Your task to perform on an android device: Open battery settings Image 0: 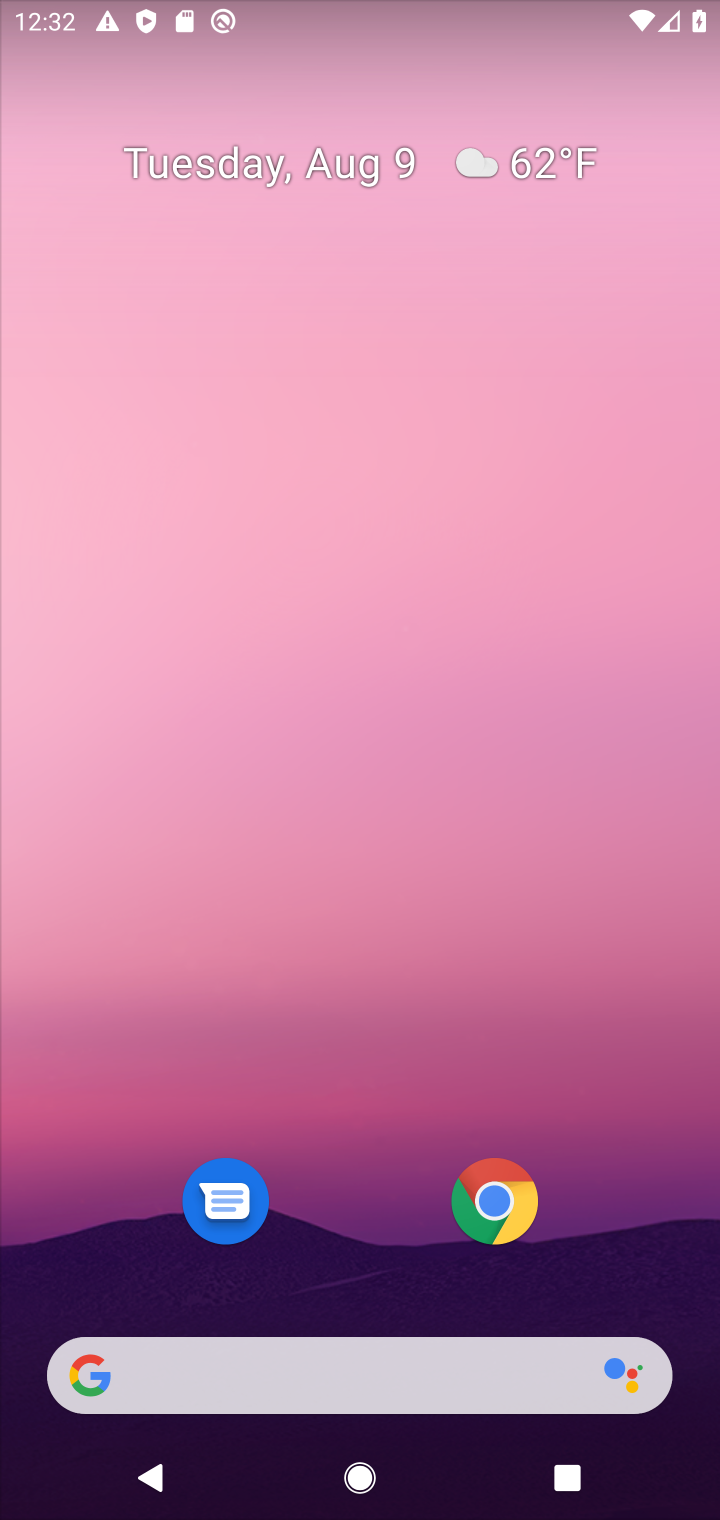
Step 0: drag from (340, 1178) to (318, 2)
Your task to perform on an android device: Open battery settings Image 1: 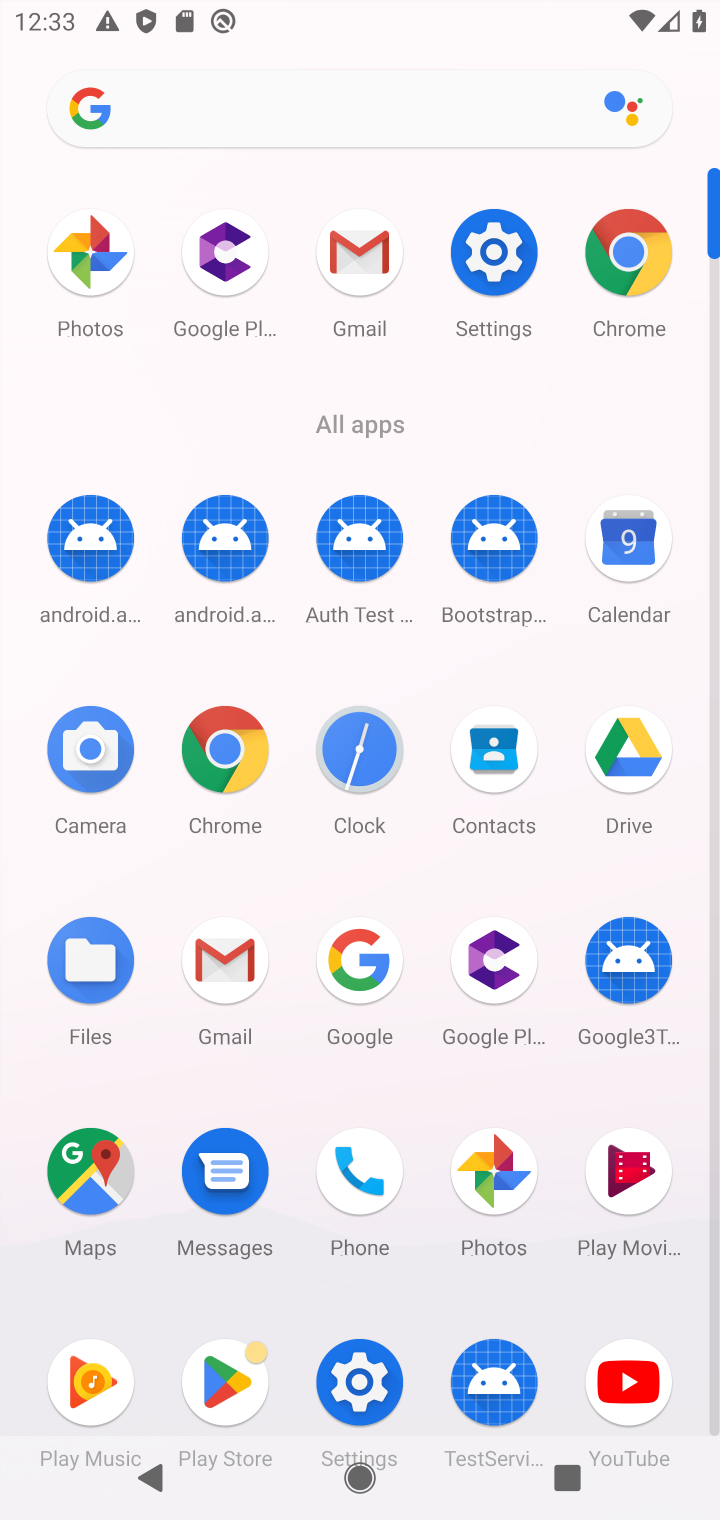
Step 1: click (354, 1380)
Your task to perform on an android device: Open battery settings Image 2: 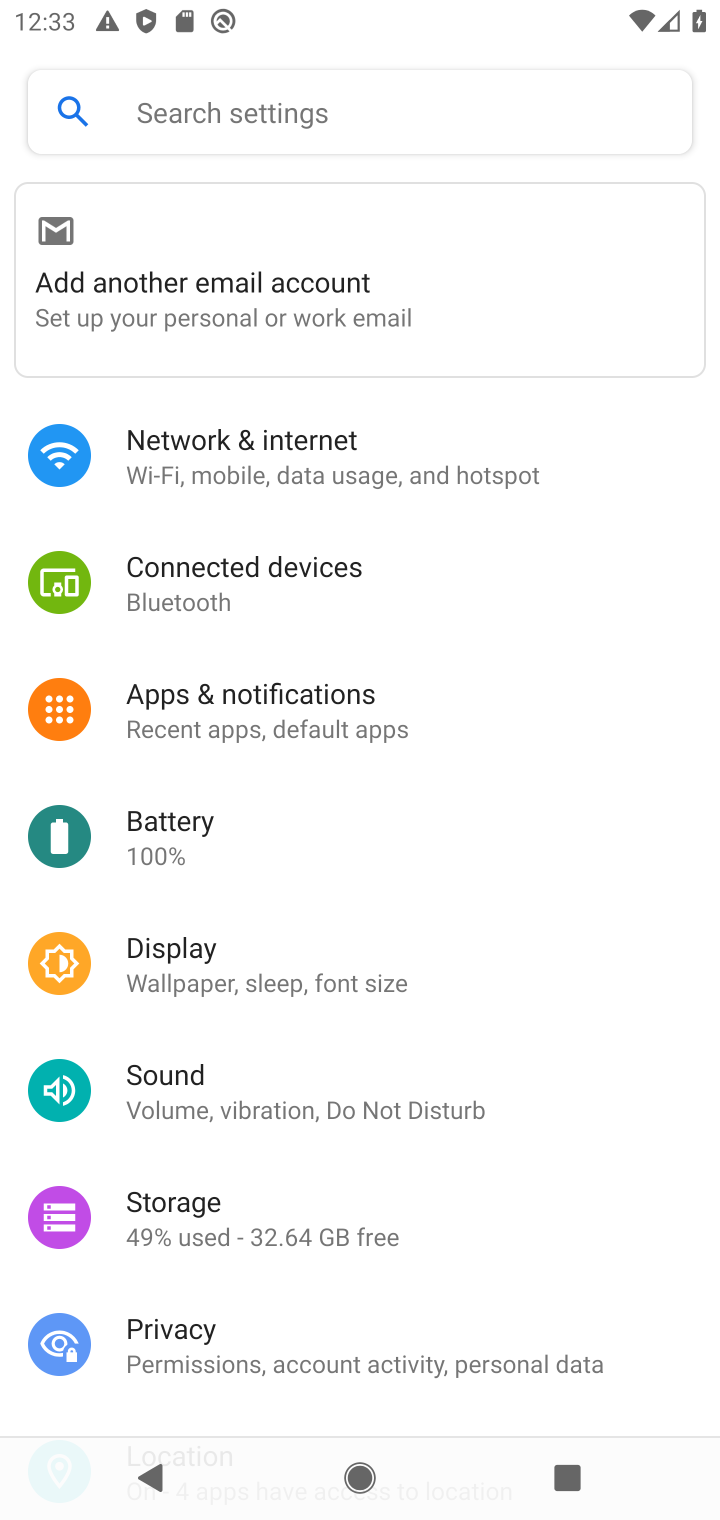
Step 2: click (202, 853)
Your task to perform on an android device: Open battery settings Image 3: 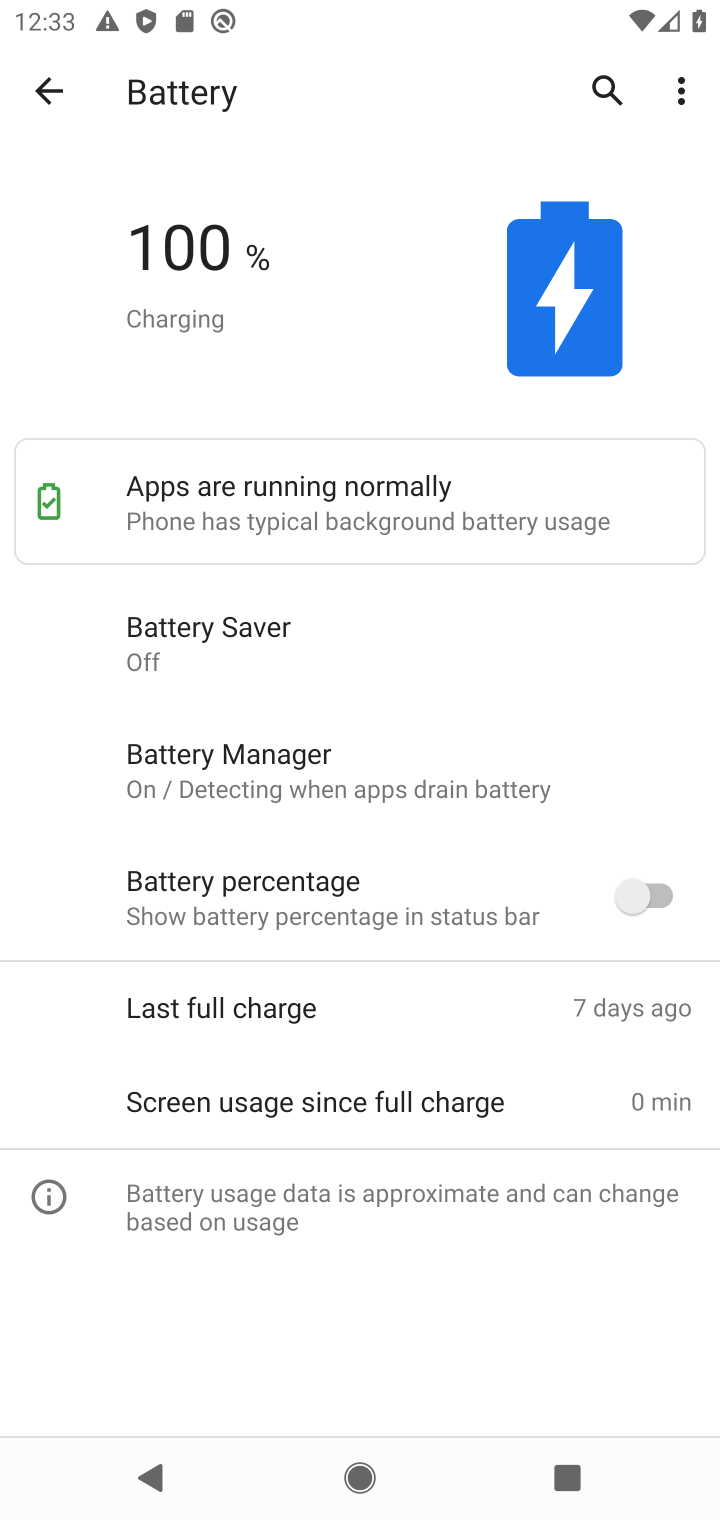
Step 3: task complete